Your task to perform on an android device: allow notifications from all sites in the chrome app Image 0: 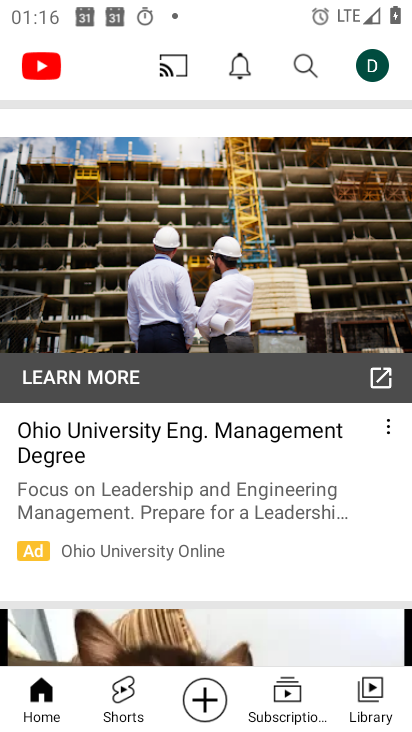
Step 0: press home button
Your task to perform on an android device: allow notifications from all sites in the chrome app Image 1: 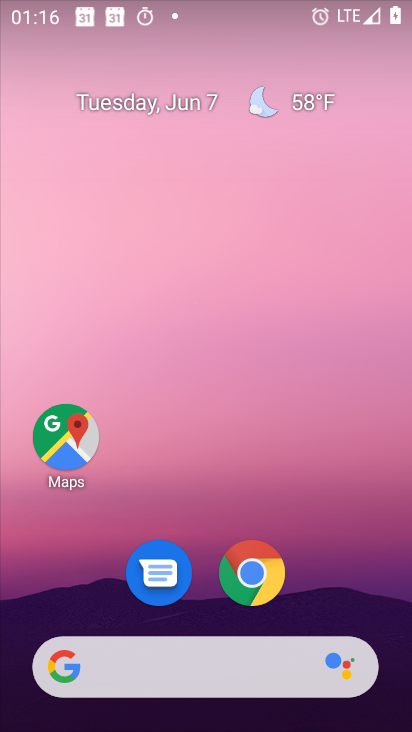
Step 1: drag from (187, 505) to (269, 88)
Your task to perform on an android device: allow notifications from all sites in the chrome app Image 2: 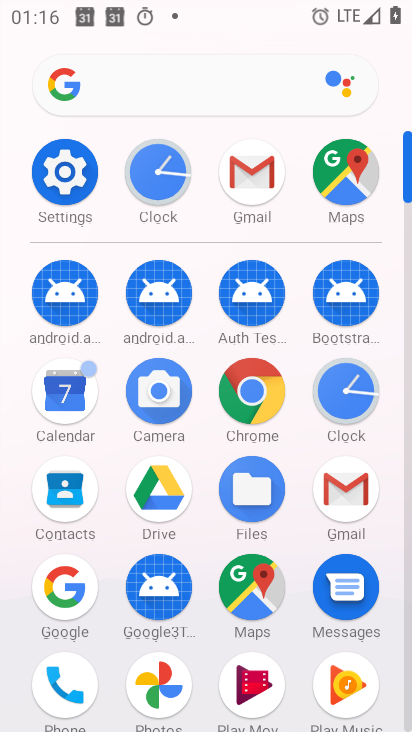
Step 2: click (249, 386)
Your task to perform on an android device: allow notifications from all sites in the chrome app Image 3: 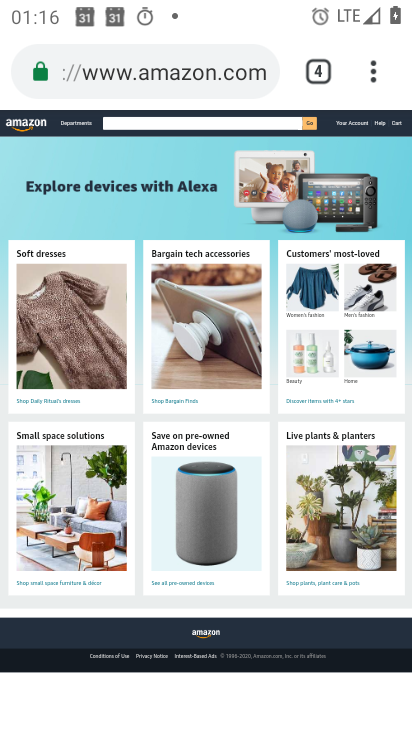
Step 3: drag from (369, 68) to (114, 564)
Your task to perform on an android device: allow notifications from all sites in the chrome app Image 4: 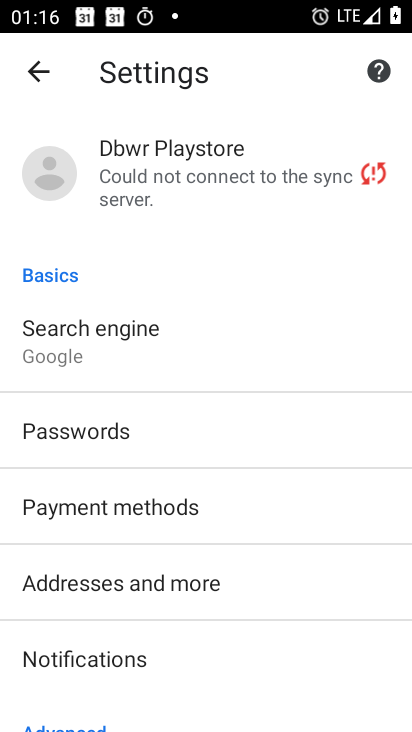
Step 4: drag from (124, 681) to (208, 369)
Your task to perform on an android device: allow notifications from all sites in the chrome app Image 5: 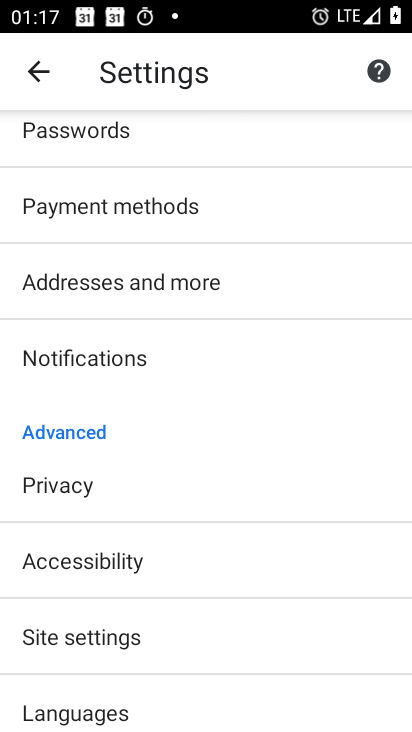
Step 5: click (69, 638)
Your task to perform on an android device: allow notifications from all sites in the chrome app Image 6: 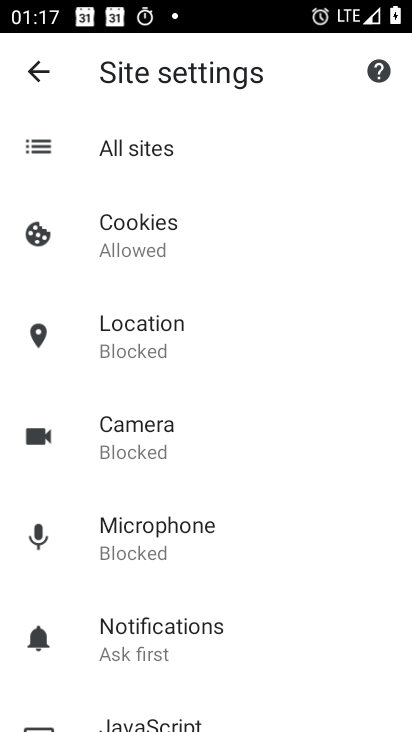
Step 6: click (104, 147)
Your task to perform on an android device: allow notifications from all sites in the chrome app Image 7: 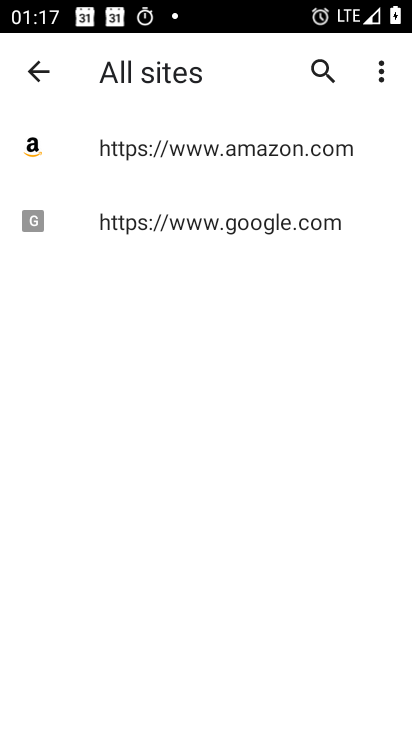
Step 7: click (124, 148)
Your task to perform on an android device: allow notifications from all sites in the chrome app Image 8: 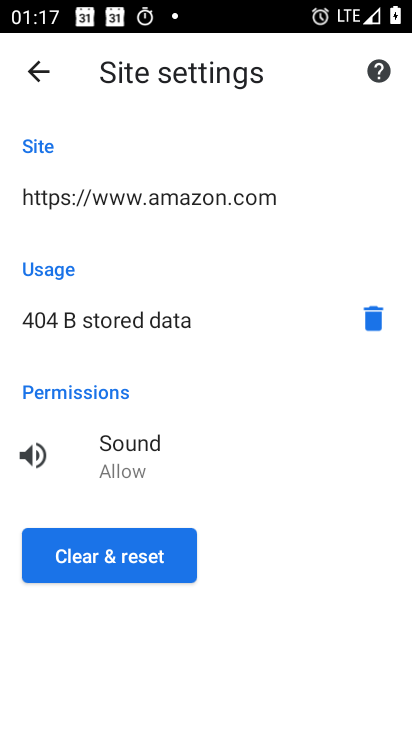
Step 8: click (30, 77)
Your task to perform on an android device: allow notifications from all sites in the chrome app Image 9: 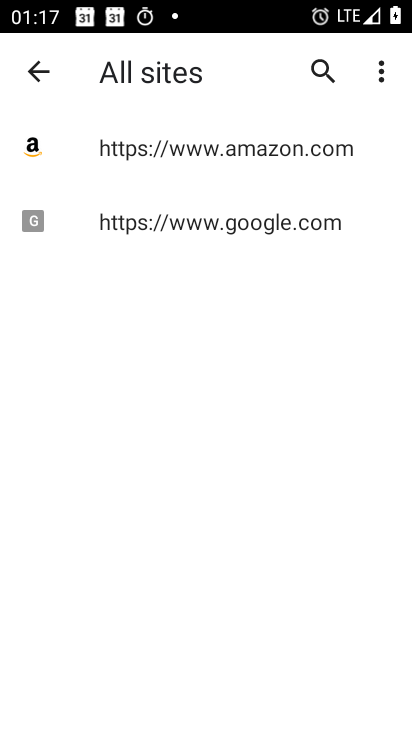
Step 9: click (110, 229)
Your task to perform on an android device: allow notifications from all sites in the chrome app Image 10: 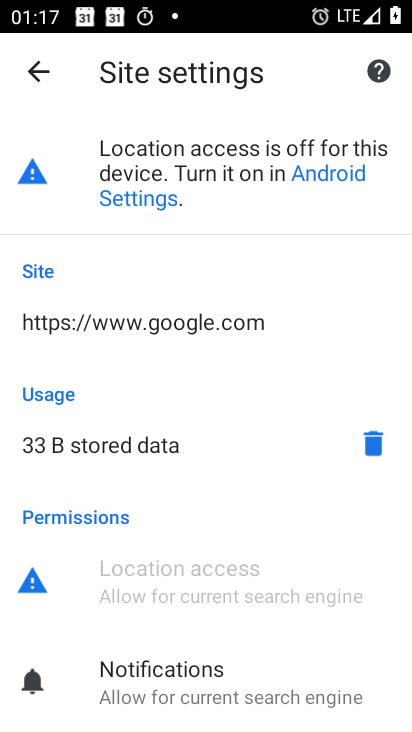
Step 10: click (164, 683)
Your task to perform on an android device: allow notifications from all sites in the chrome app Image 11: 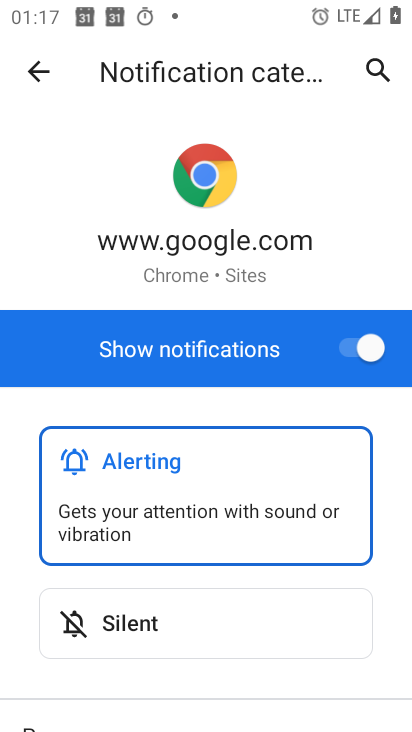
Step 11: task complete